Your task to perform on an android device: Open the calendar and show me this week's events? Image 0: 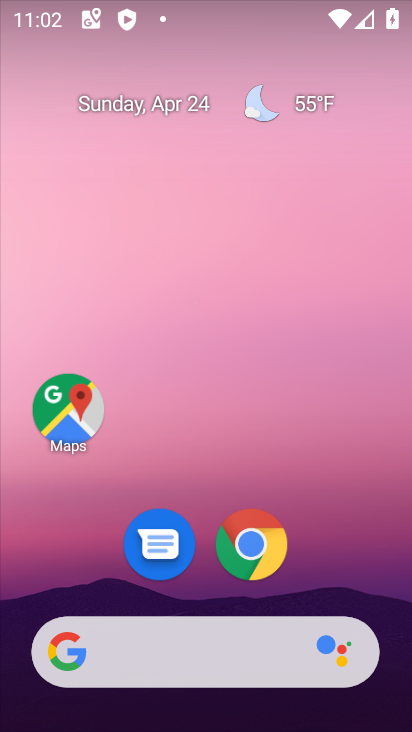
Step 0: drag from (307, 533) to (128, 72)
Your task to perform on an android device: Open the calendar and show me this week's events? Image 1: 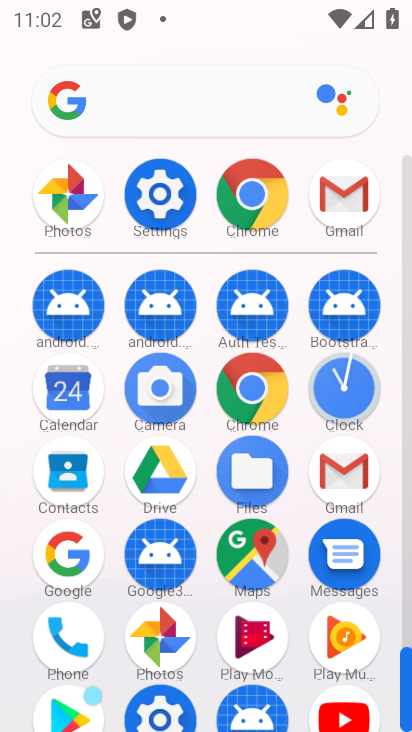
Step 1: click (67, 390)
Your task to perform on an android device: Open the calendar and show me this week's events? Image 2: 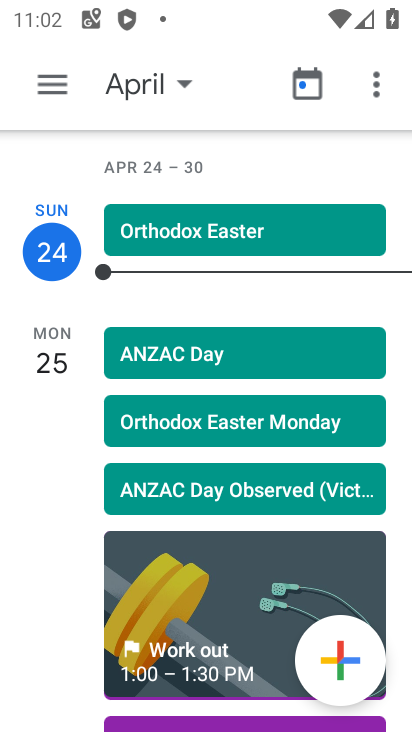
Step 2: task complete